Your task to perform on an android device: open app "Pinterest" (install if not already installed) Image 0: 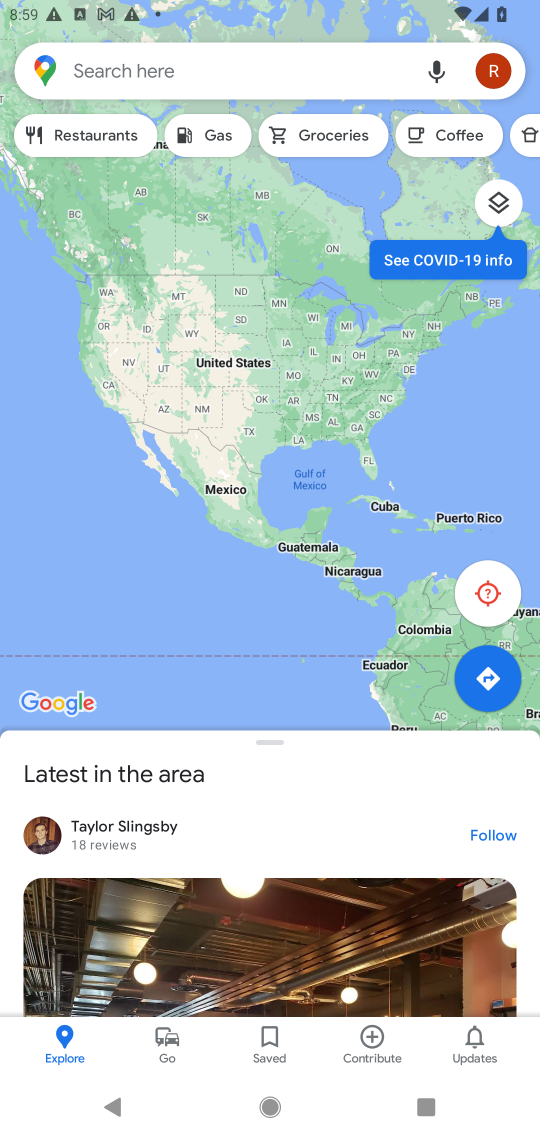
Step 0: press home button
Your task to perform on an android device: open app "Pinterest" (install if not already installed) Image 1: 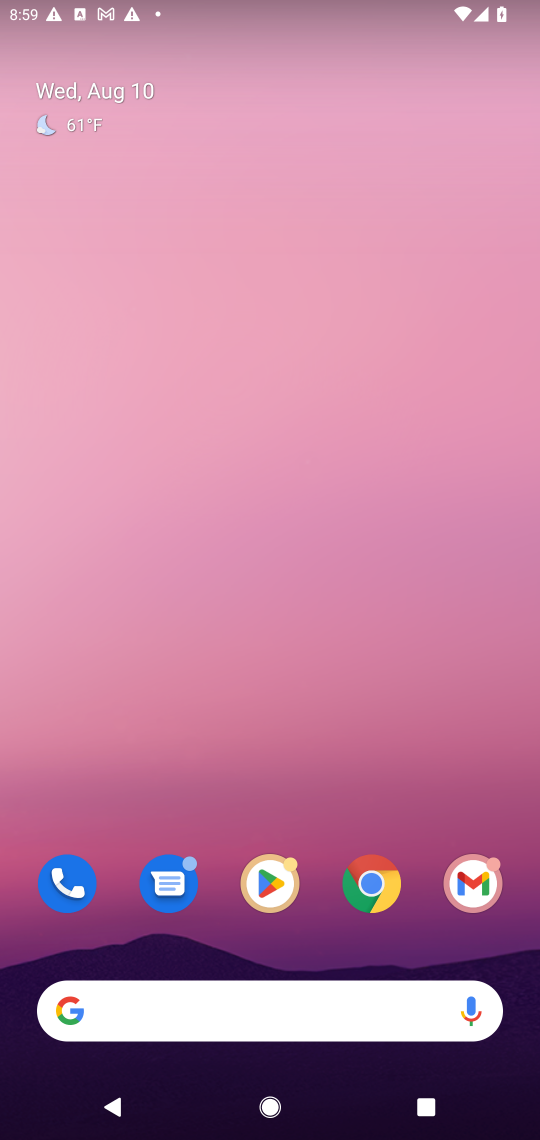
Step 1: click (245, 896)
Your task to perform on an android device: open app "Pinterest" (install if not already installed) Image 2: 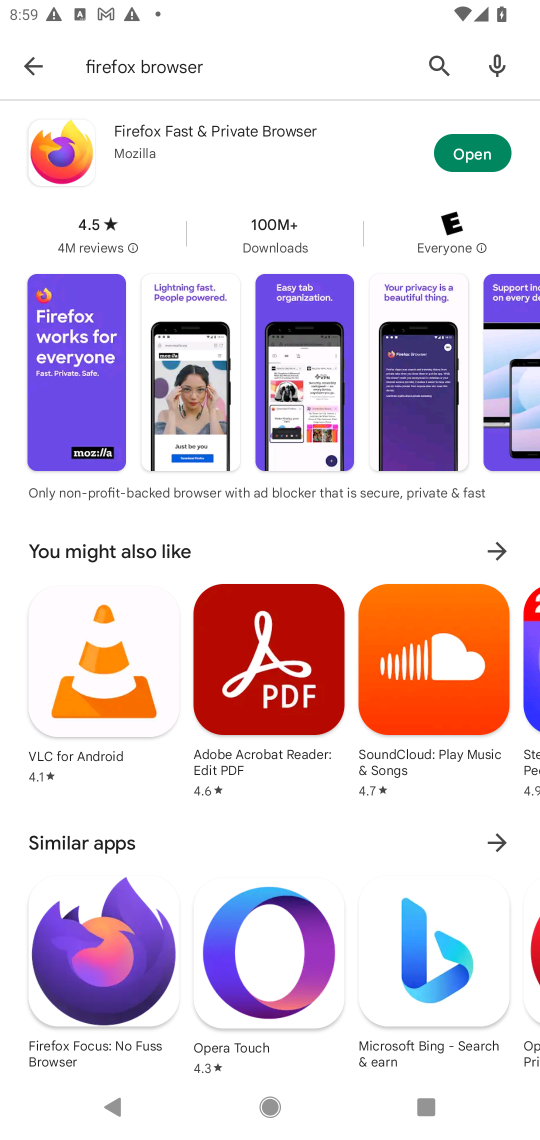
Step 2: click (449, 60)
Your task to perform on an android device: open app "Pinterest" (install if not already installed) Image 3: 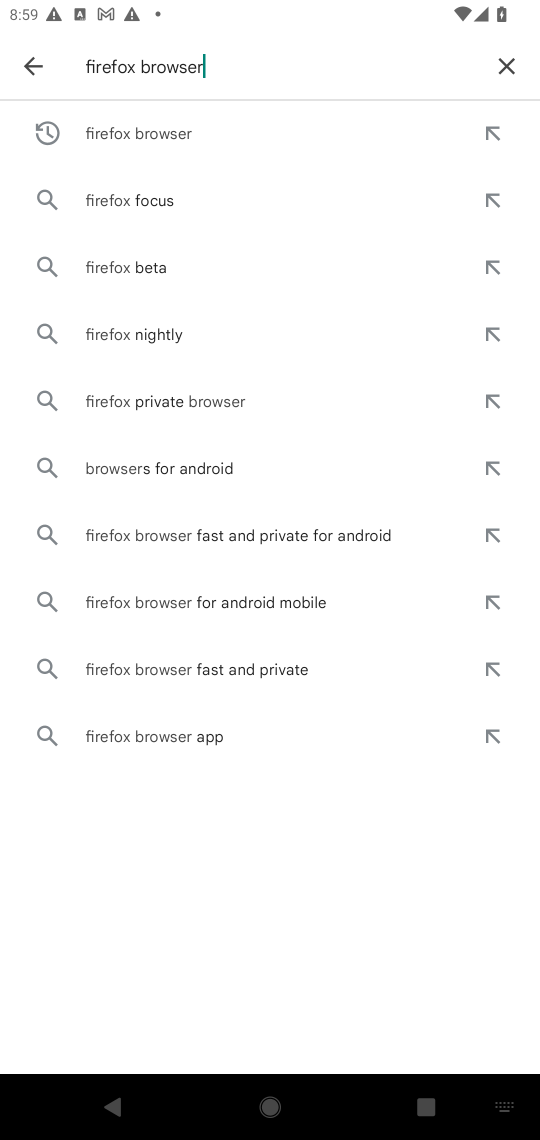
Step 3: click (505, 65)
Your task to perform on an android device: open app "Pinterest" (install if not already installed) Image 4: 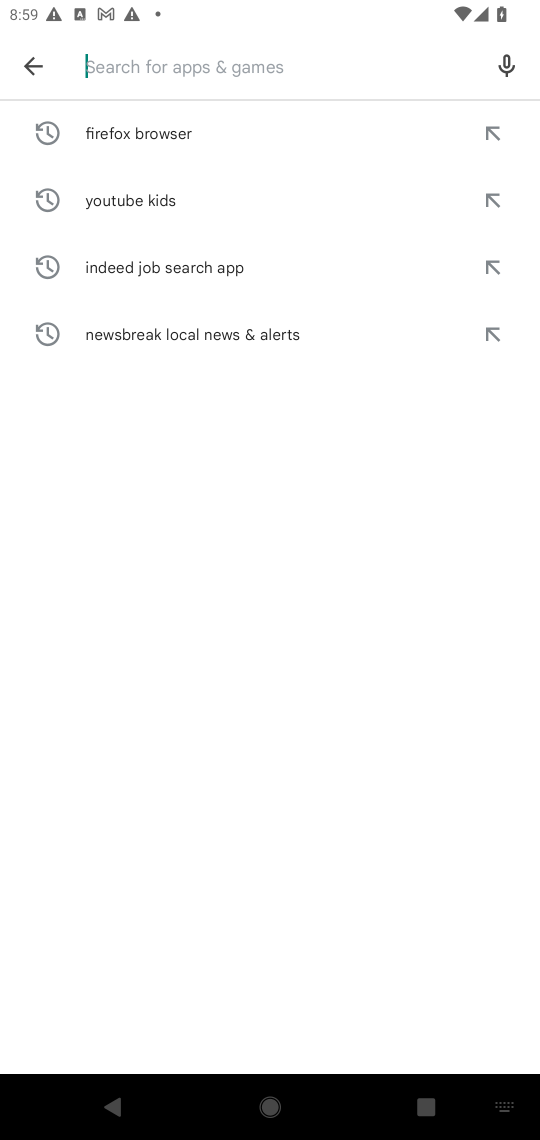
Step 4: type "Pinterest"
Your task to perform on an android device: open app "Pinterest" (install if not already installed) Image 5: 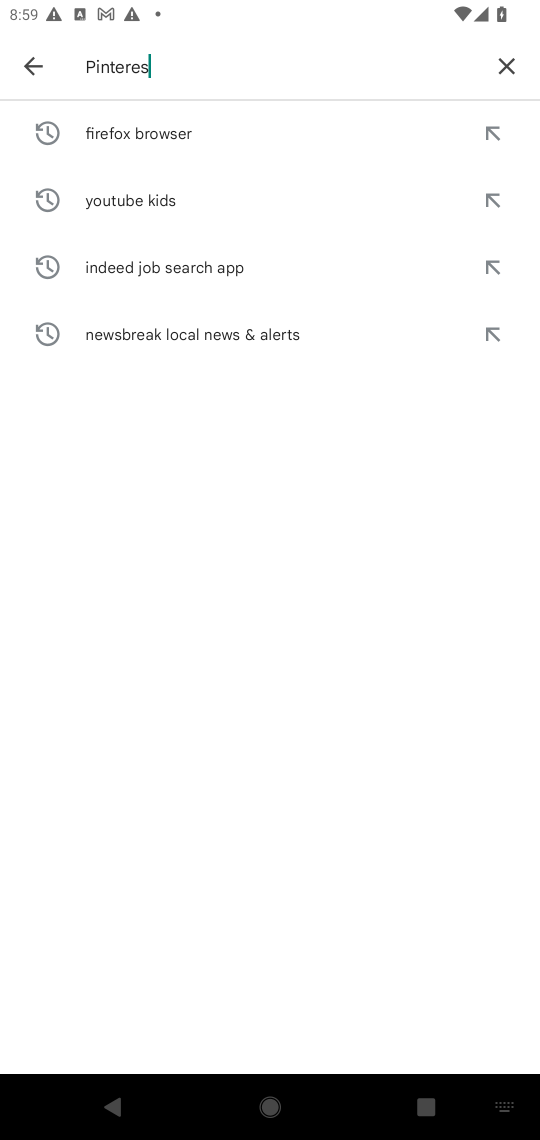
Step 5: type ""
Your task to perform on an android device: open app "Pinterest" (install if not already installed) Image 6: 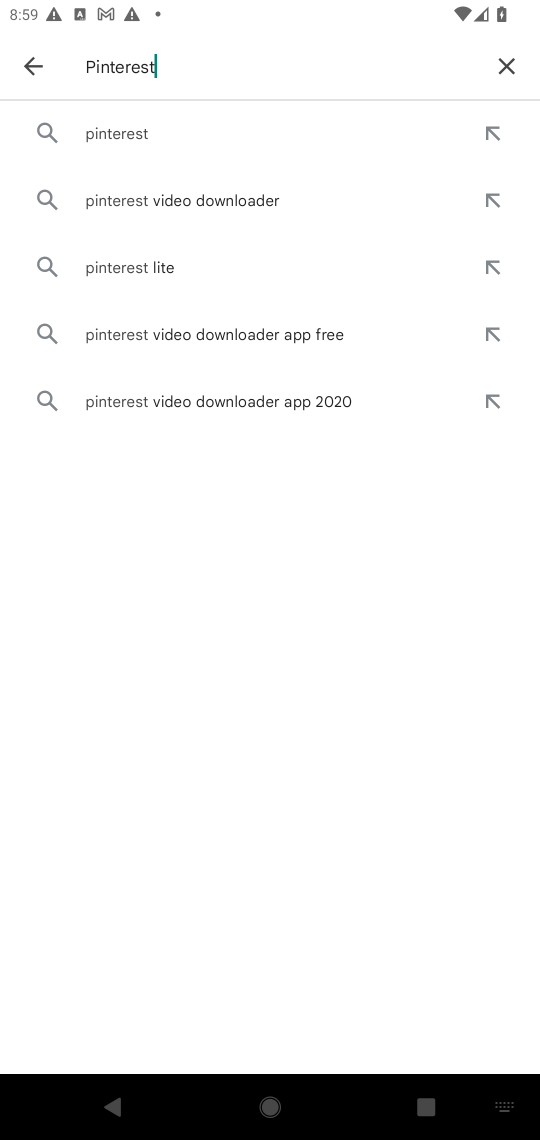
Step 6: click (156, 127)
Your task to perform on an android device: open app "Pinterest" (install if not already installed) Image 7: 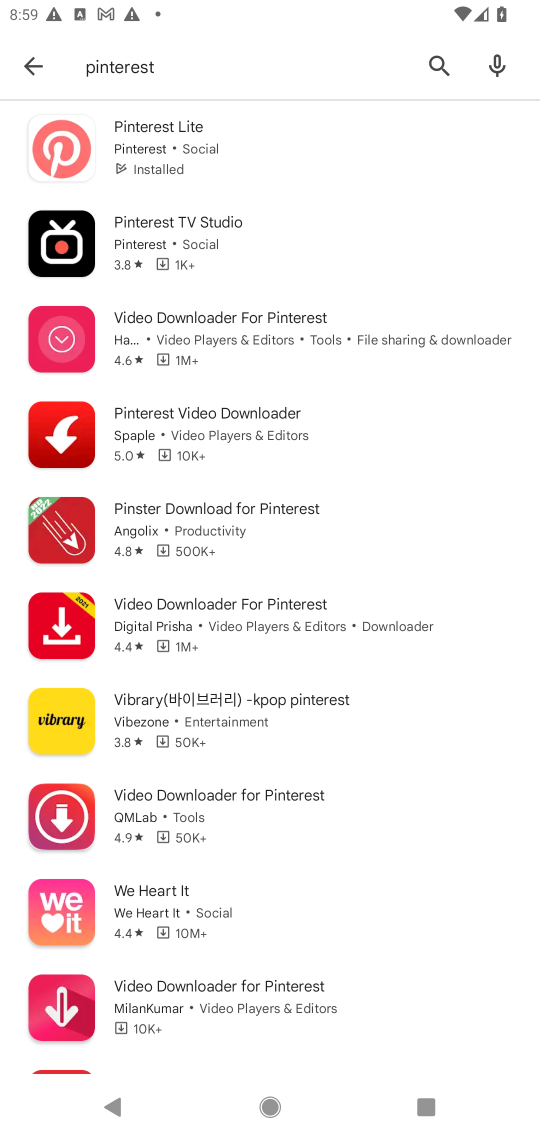
Step 7: click (163, 141)
Your task to perform on an android device: open app "Pinterest" (install if not already installed) Image 8: 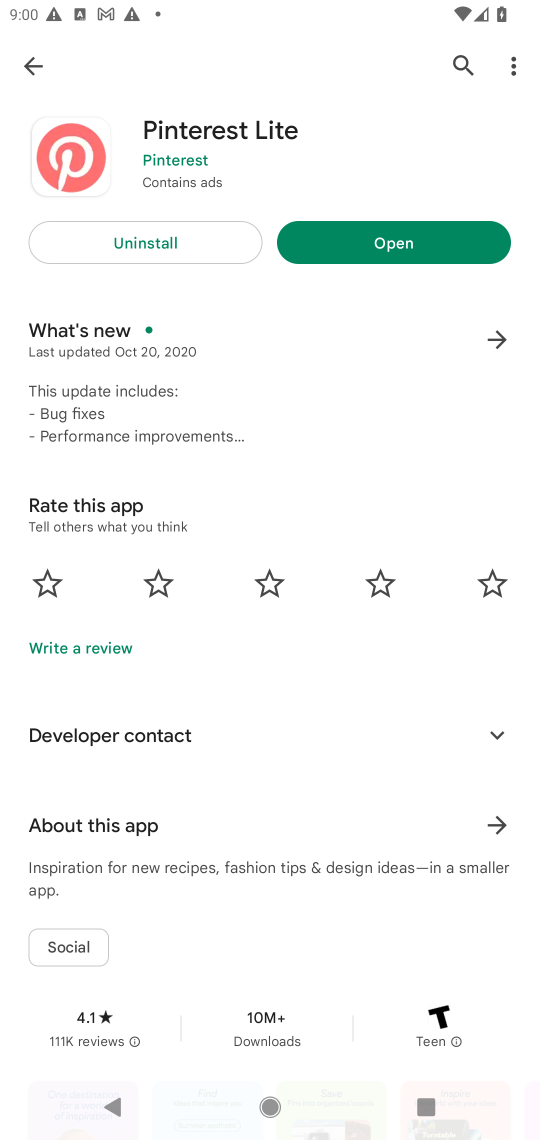
Step 8: click (392, 245)
Your task to perform on an android device: open app "Pinterest" (install if not already installed) Image 9: 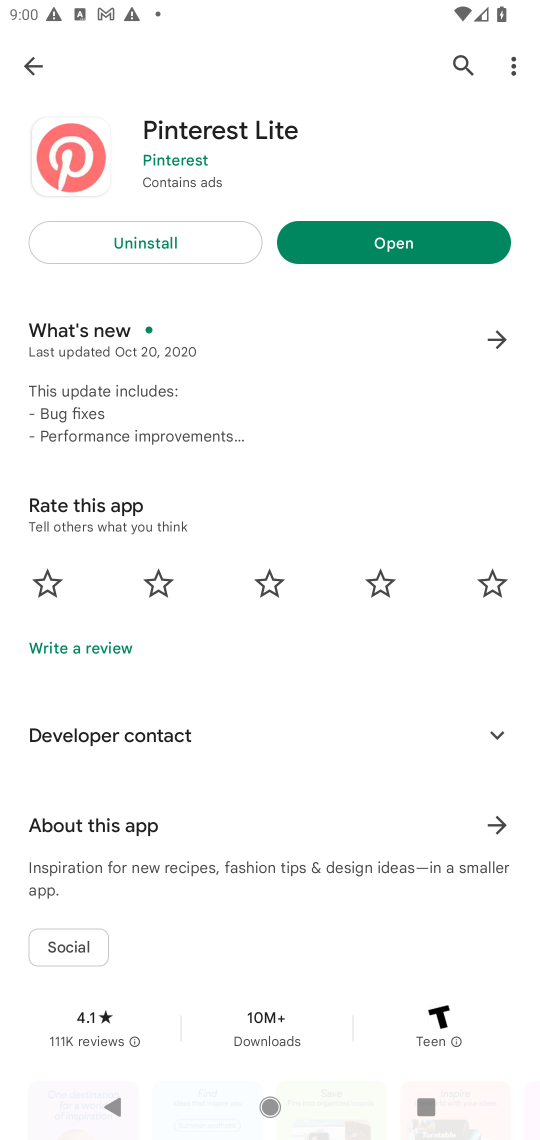
Step 9: click (392, 245)
Your task to perform on an android device: open app "Pinterest" (install if not already installed) Image 10: 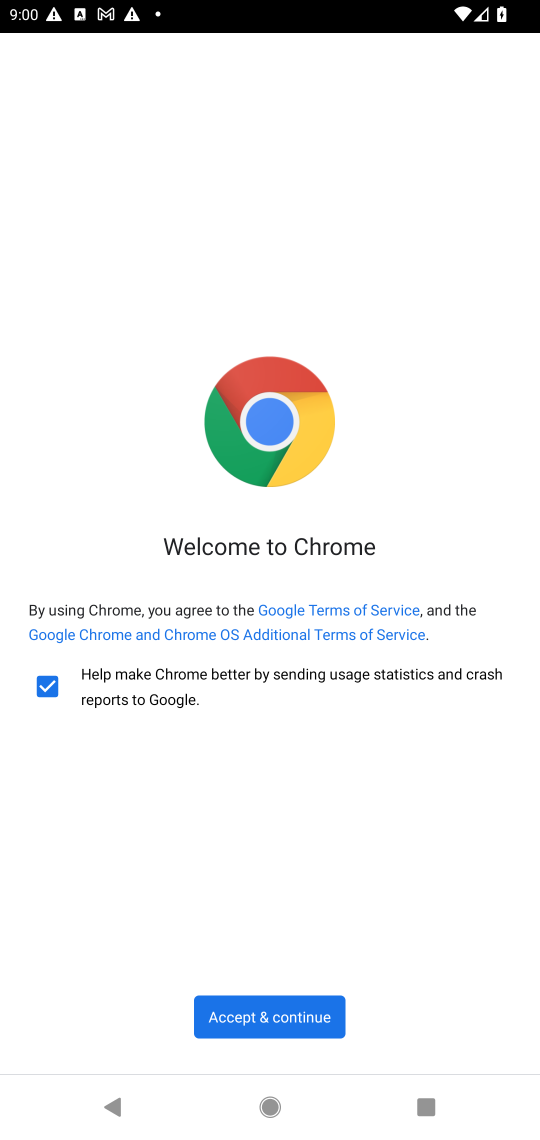
Step 10: task complete